Your task to perform on an android device: visit the assistant section in the google photos Image 0: 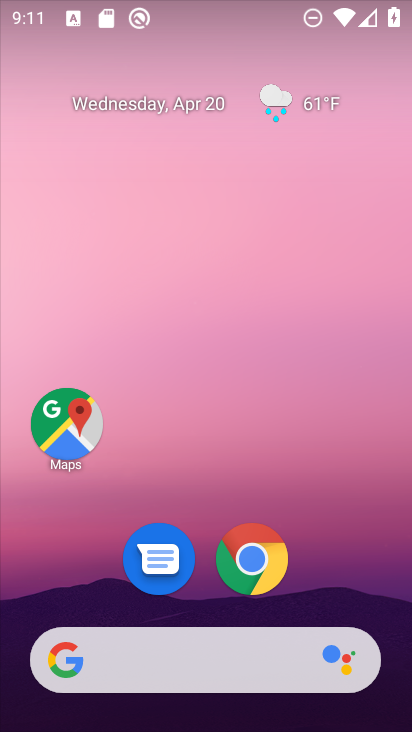
Step 0: drag from (395, 643) to (300, 218)
Your task to perform on an android device: visit the assistant section in the google photos Image 1: 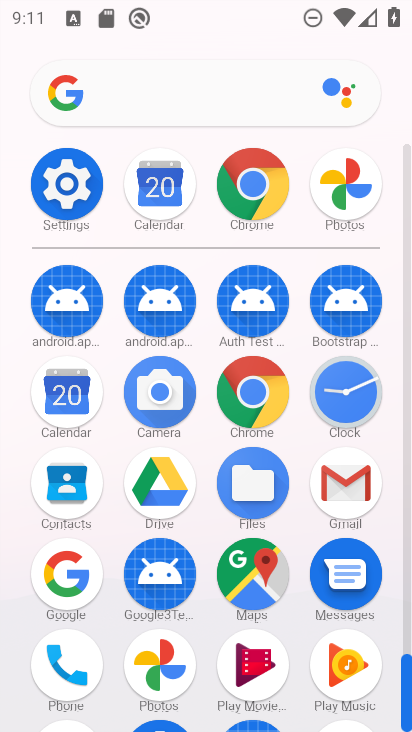
Step 1: drag from (407, 640) to (403, 602)
Your task to perform on an android device: visit the assistant section in the google photos Image 2: 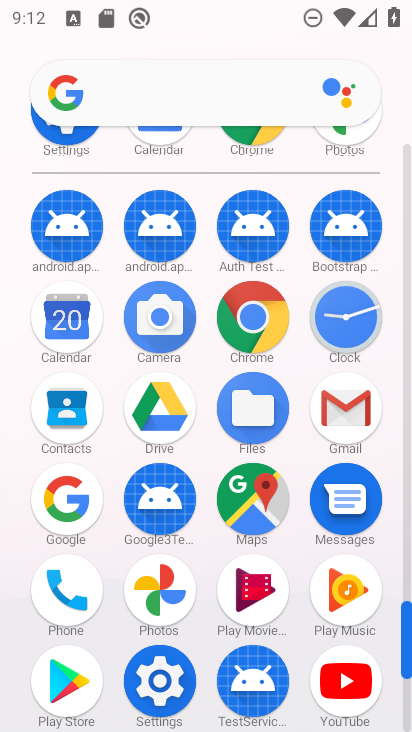
Step 2: click (160, 588)
Your task to perform on an android device: visit the assistant section in the google photos Image 3: 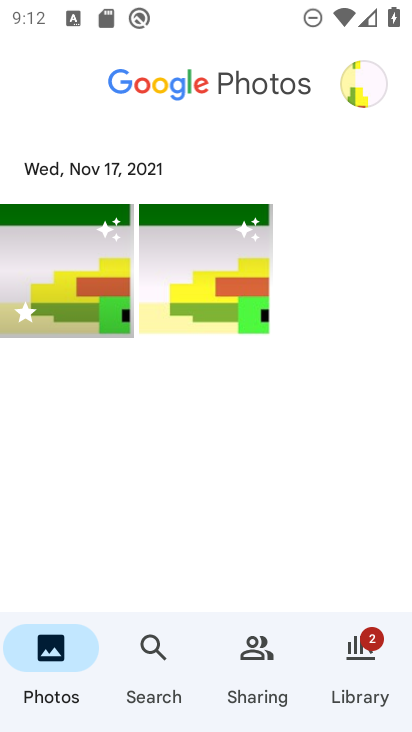
Step 3: click (359, 655)
Your task to perform on an android device: visit the assistant section in the google photos Image 4: 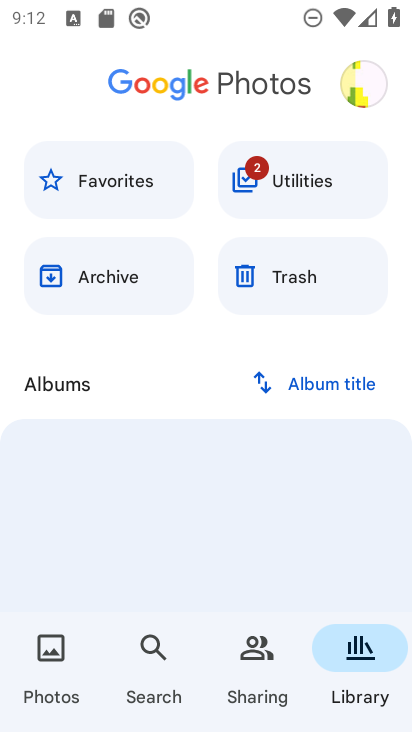
Step 4: drag from (262, 544) to (214, 197)
Your task to perform on an android device: visit the assistant section in the google photos Image 5: 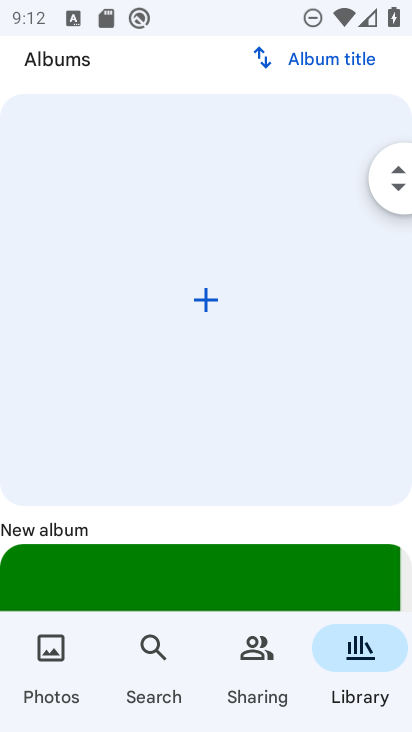
Step 5: drag from (207, 555) to (204, 120)
Your task to perform on an android device: visit the assistant section in the google photos Image 6: 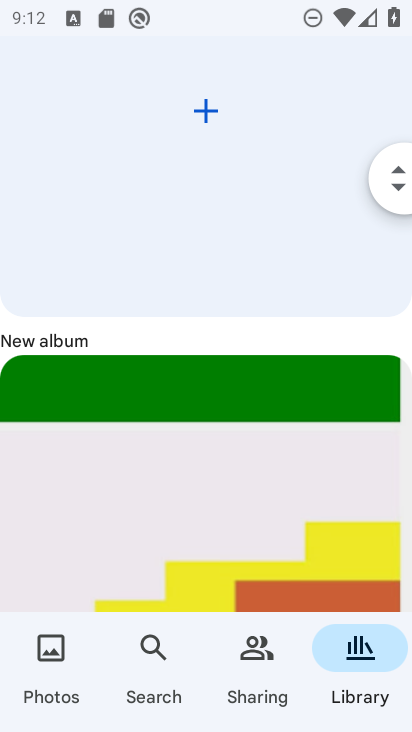
Step 6: drag from (203, 120) to (207, 466)
Your task to perform on an android device: visit the assistant section in the google photos Image 7: 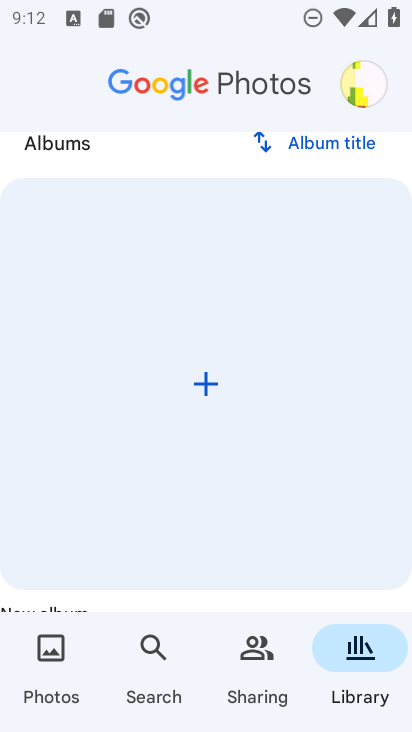
Step 7: click (369, 84)
Your task to perform on an android device: visit the assistant section in the google photos Image 8: 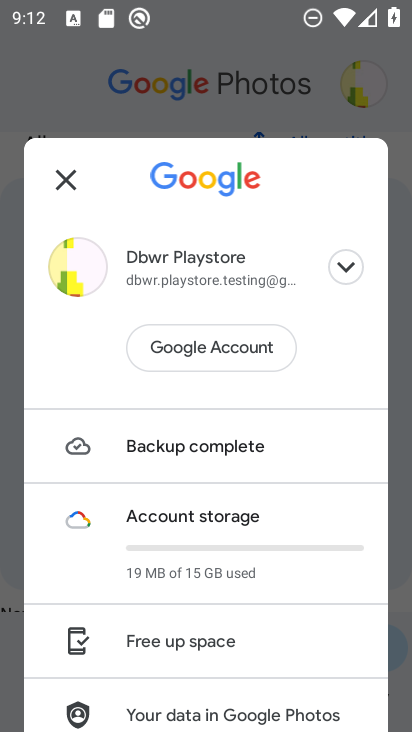
Step 8: task complete